Your task to perform on an android device: Open accessibility settings Image 0: 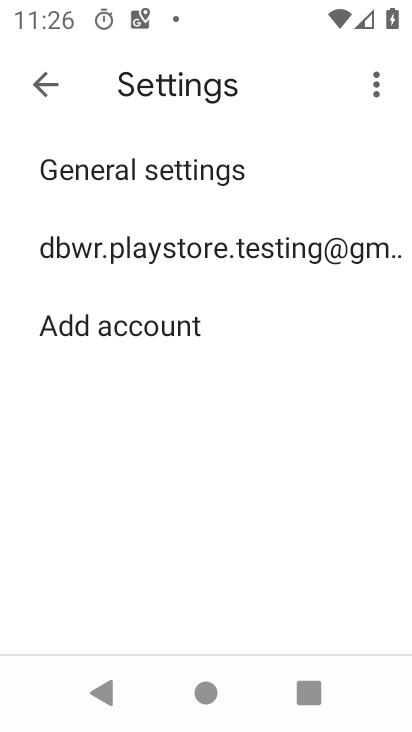
Step 0: press home button
Your task to perform on an android device: Open accessibility settings Image 1: 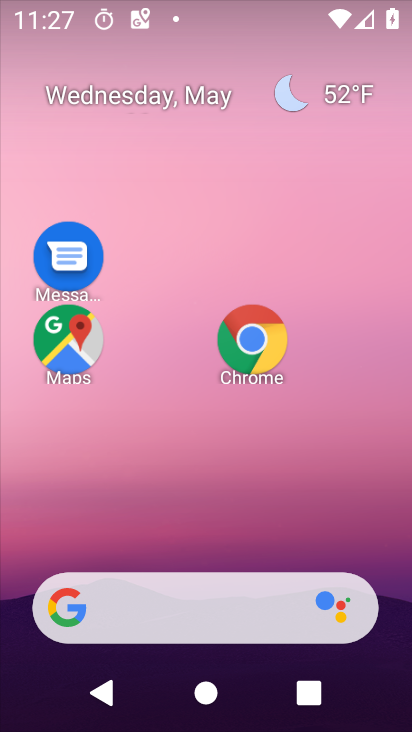
Step 1: drag from (213, 497) to (206, 39)
Your task to perform on an android device: Open accessibility settings Image 2: 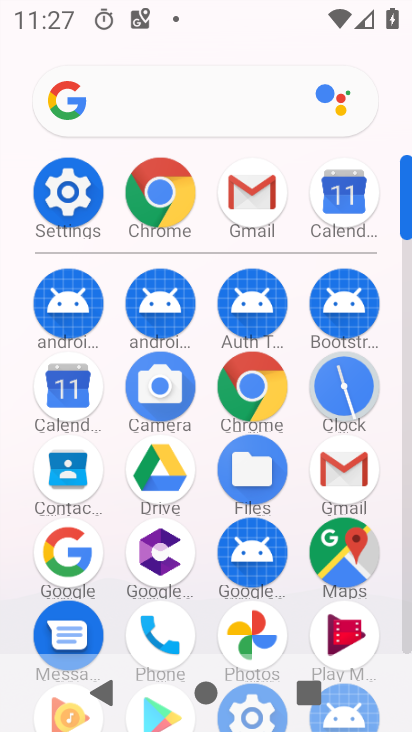
Step 2: click (72, 192)
Your task to perform on an android device: Open accessibility settings Image 3: 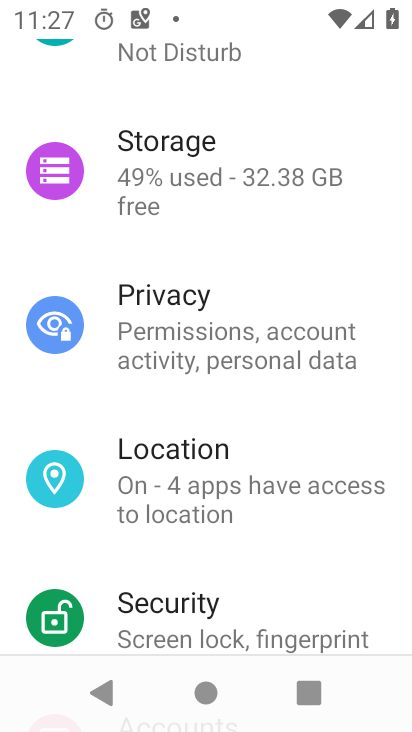
Step 3: drag from (244, 566) to (252, 19)
Your task to perform on an android device: Open accessibility settings Image 4: 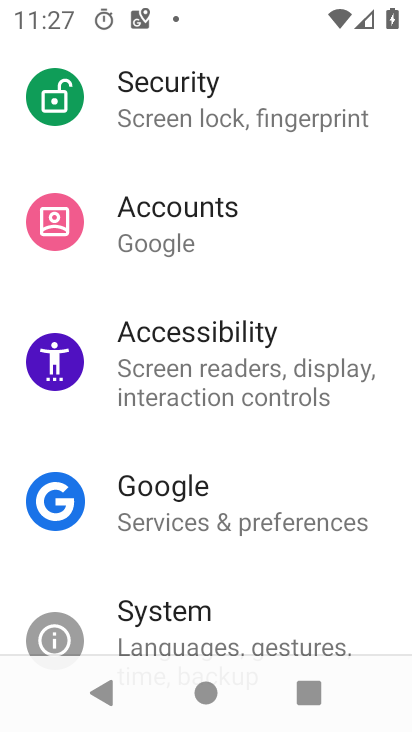
Step 4: click (230, 373)
Your task to perform on an android device: Open accessibility settings Image 5: 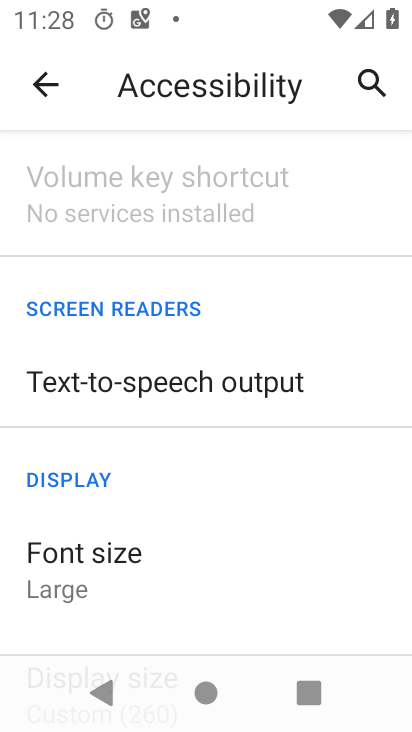
Step 5: task complete